Your task to perform on an android device: open a new tab in the chrome app Image 0: 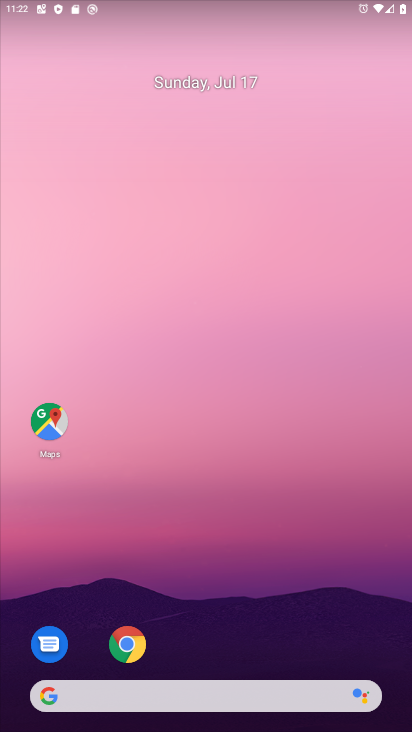
Step 0: drag from (274, 631) to (283, 124)
Your task to perform on an android device: open a new tab in the chrome app Image 1: 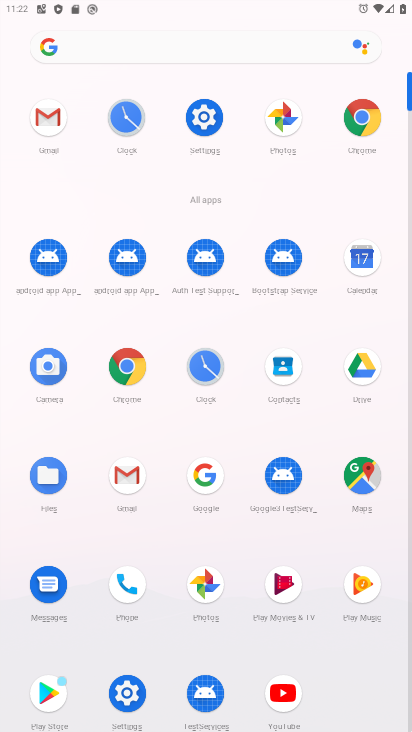
Step 1: click (130, 363)
Your task to perform on an android device: open a new tab in the chrome app Image 2: 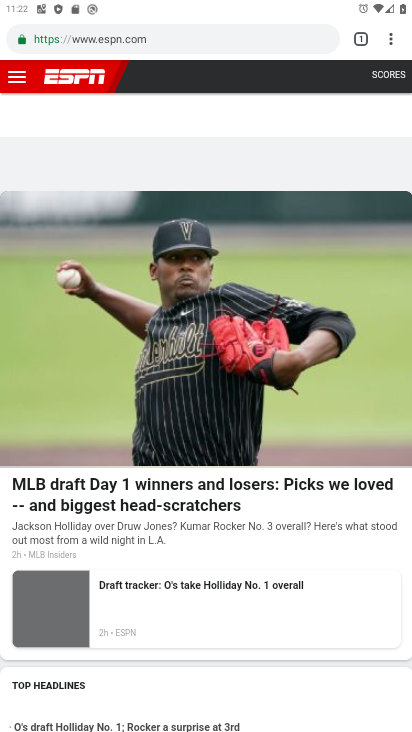
Step 2: task complete